Your task to perform on an android device: Toggle the flashlight Image 0: 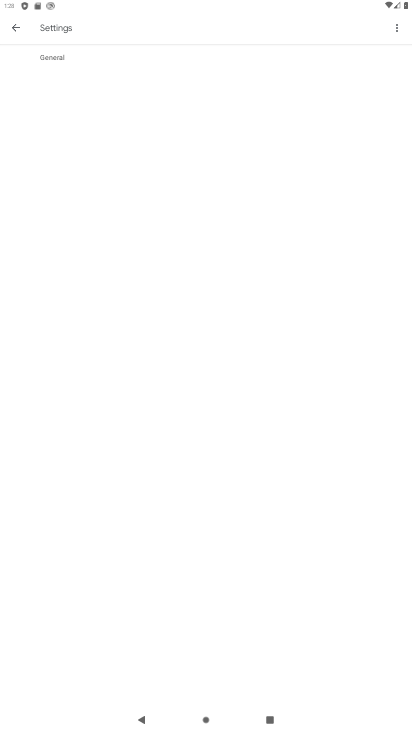
Step 0: drag from (261, 23) to (245, 366)
Your task to perform on an android device: Toggle the flashlight Image 1: 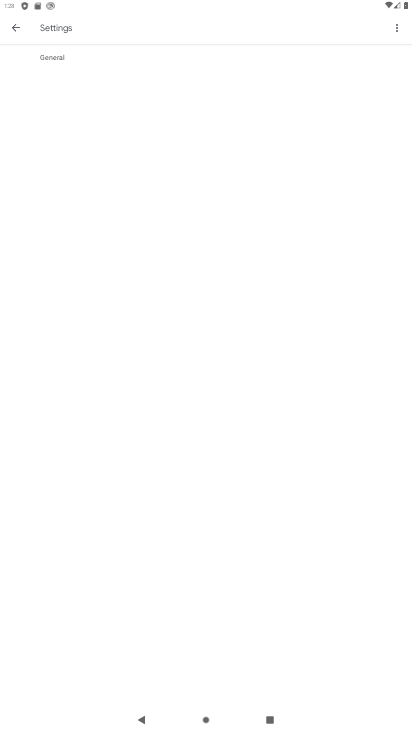
Step 1: task complete